Your task to perform on an android device: toggle improve location accuracy Image 0: 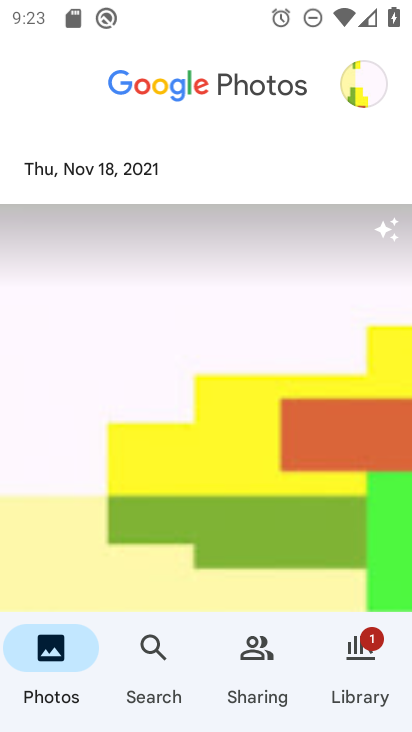
Step 0: press home button
Your task to perform on an android device: toggle improve location accuracy Image 1: 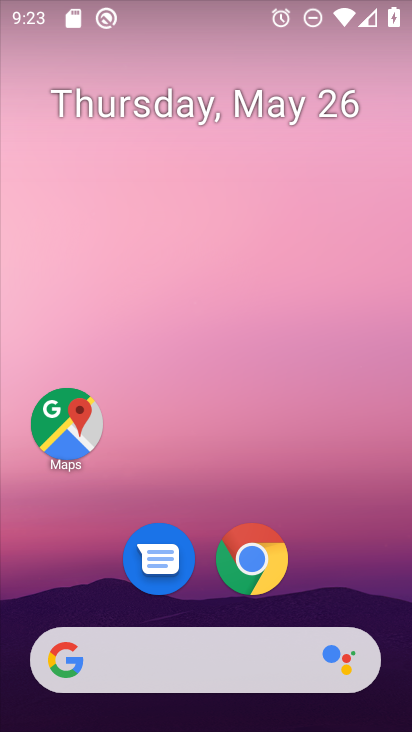
Step 1: drag from (336, 547) to (334, 63)
Your task to perform on an android device: toggle improve location accuracy Image 2: 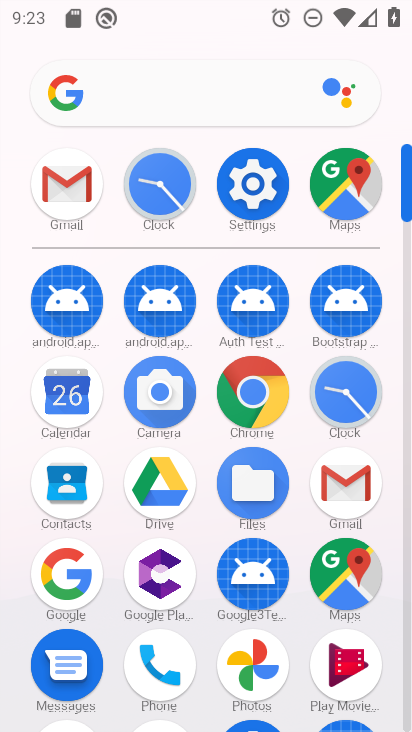
Step 2: click (256, 171)
Your task to perform on an android device: toggle improve location accuracy Image 3: 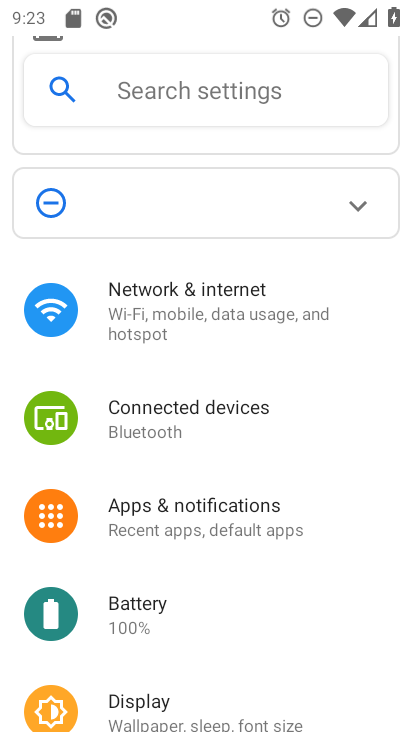
Step 3: drag from (229, 663) to (266, 143)
Your task to perform on an android device: toggle improve location accuracy Image 4: 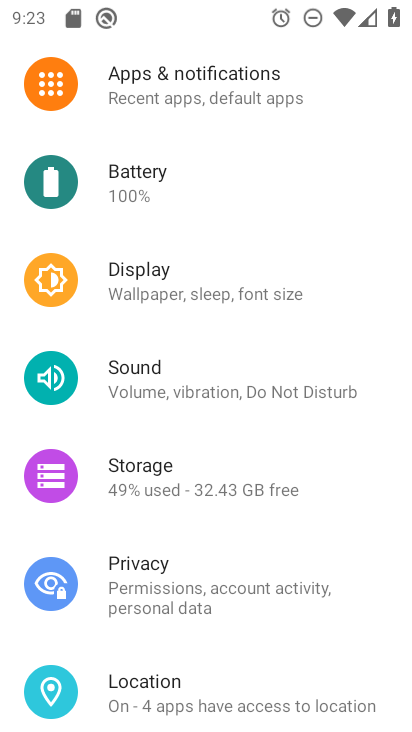
Step 4: click (179, 716)
Your task to perform on an android device: toggle improve location accuracy Image 5: 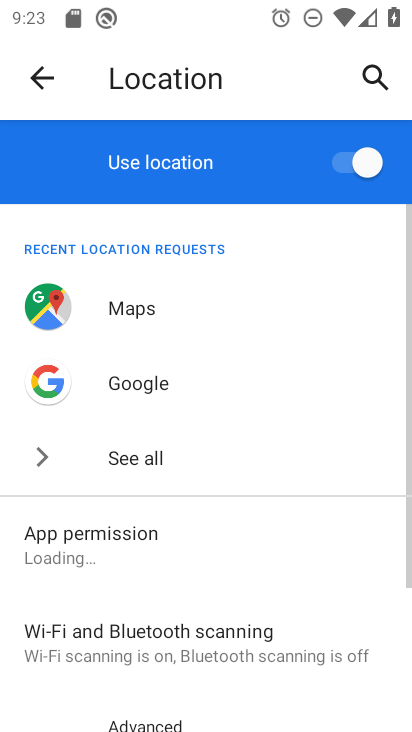
Step 5: drag from (213, 699) to (225, 376)
Your task to perform on an android device: toggle improve location accuracy Image 6: 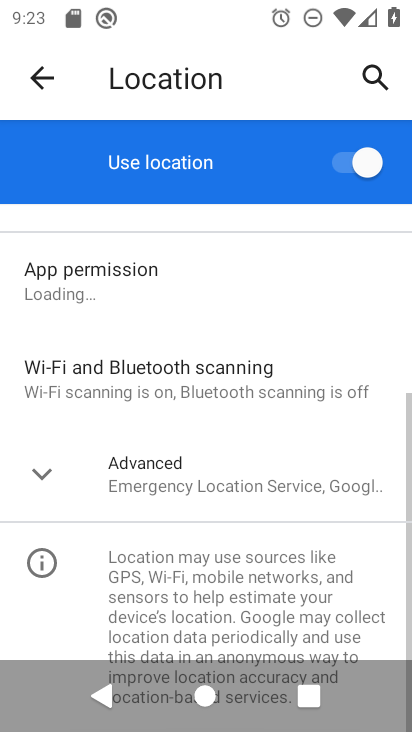
Step 6: click (161, 476)
Your task to perform on an android device: toggle improve location accuracy Image 7: 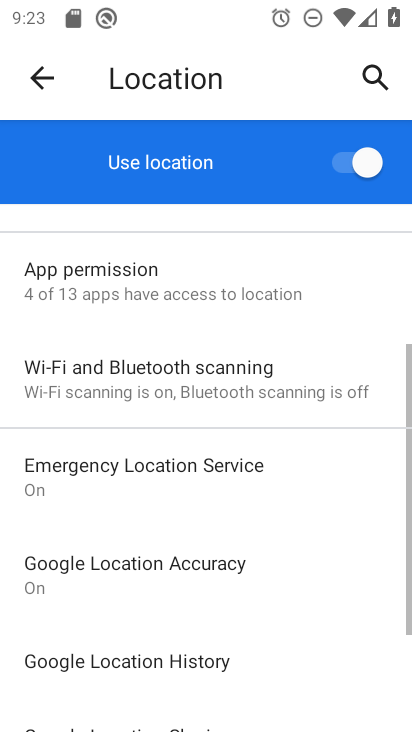
Step 7: click (175, 578)
Your task to perform on an android device: toggle improve location accuracy Image 8: 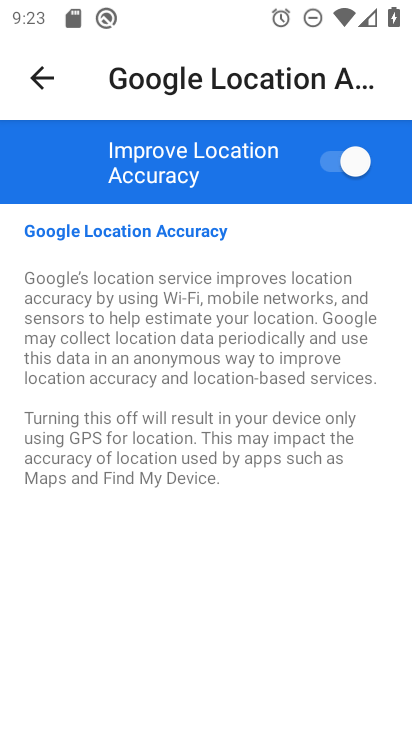
Step 8: click (344, 152)
Your task to perform on an android device: toggle improve location accuracy Image 9: 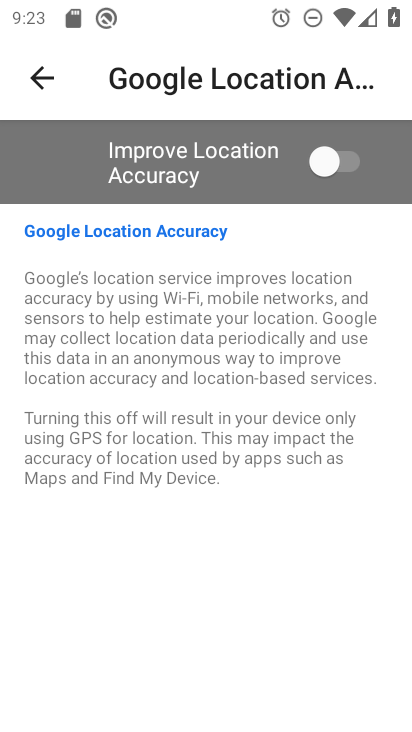
Step 9: task complete